Your task to perform on an android device: check android version Image 0: 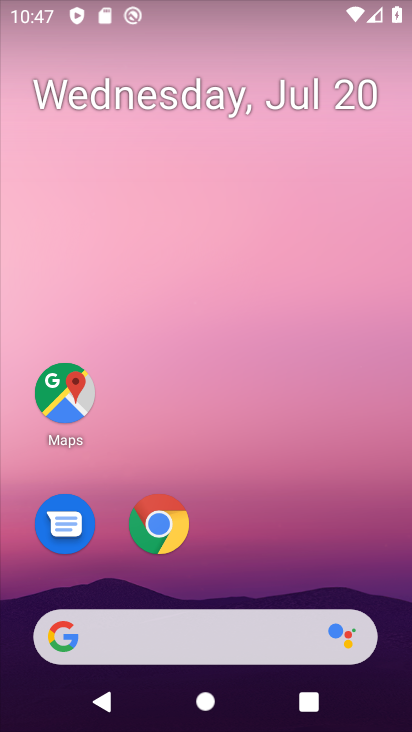
Step 0: drag from (251, 556) to (300, 98)
Your task to perform on an android device: check android version Image 1: 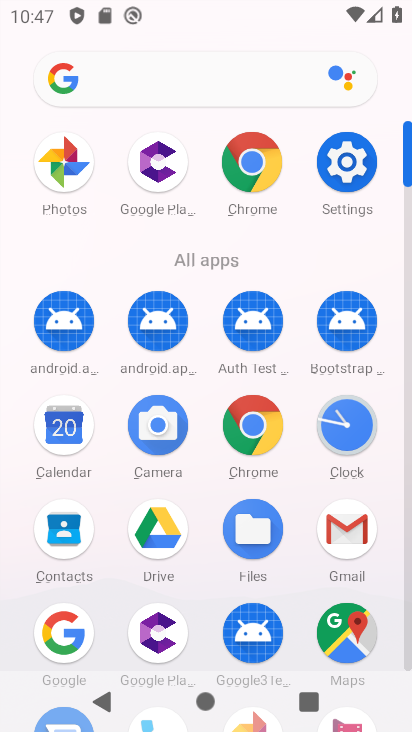
Step 1: click (351, 165)
Your task to perform on an android device: check android version Image 2: 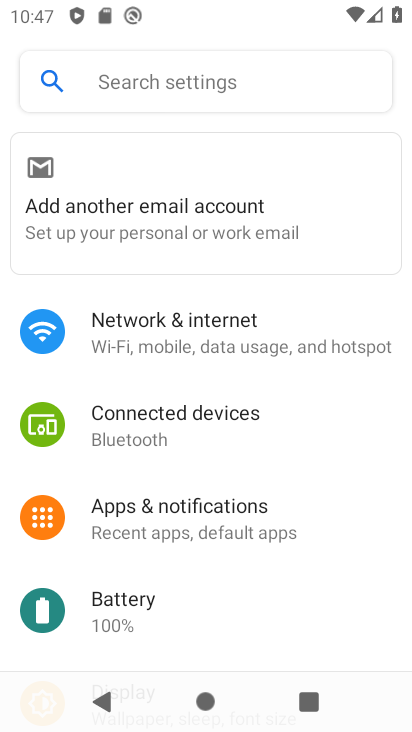
Step 2: drag from (251, 582) to (290, 105)
Your task to perform on an android device: check android version Image 3: 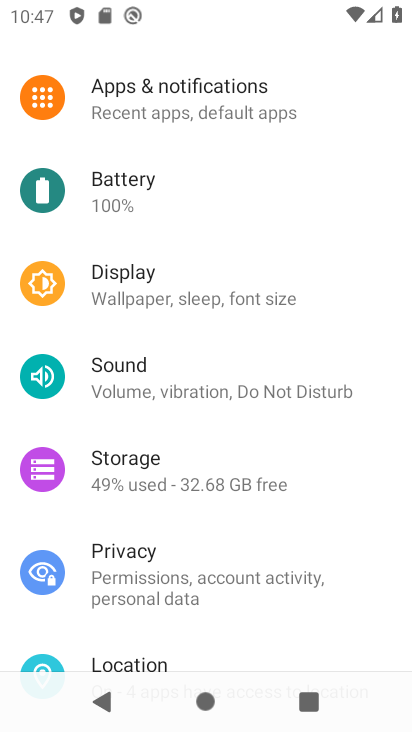
Step 3: drag from (198, 594) to (288, 97)
Your task to perform on an android device: check android version Image 4: 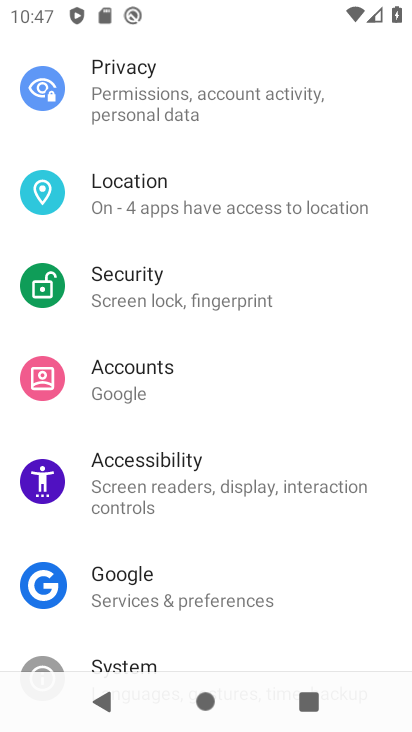
Step 4: drag from (215, 529) to (264, 172)
Your task to perform on an android device: check android version Image 5: 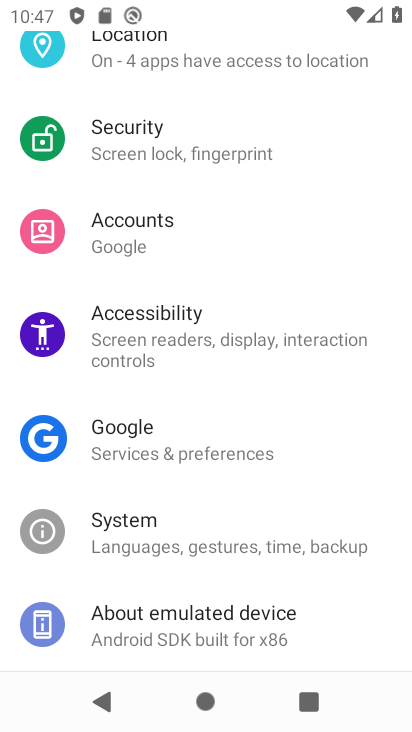
Step 5: click (195, 617)
Your task to perform on an android device: check android version Image 6: 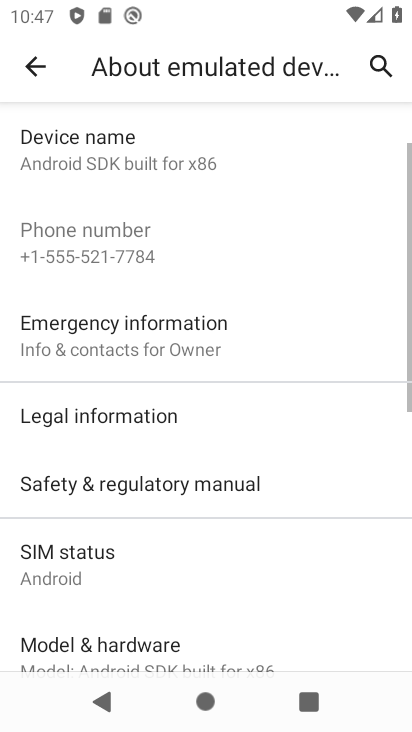
Step 6: drag from (246, 572) to (288, 164)
Your task to perform on an android device: check android version Image 7: 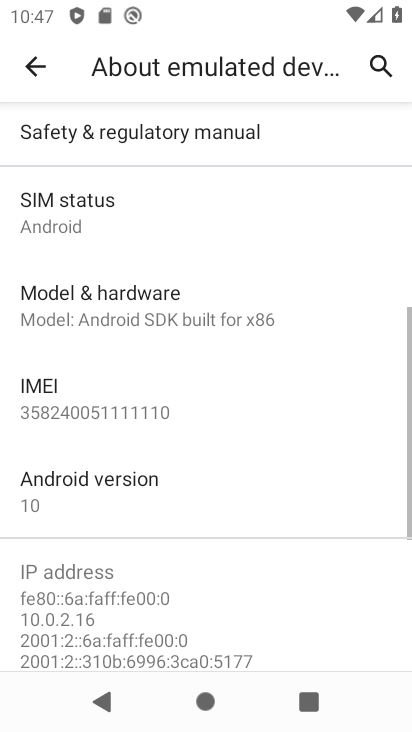
Step 7: click (151, 492)
Your task to perform on an android device: check android version Image 8: 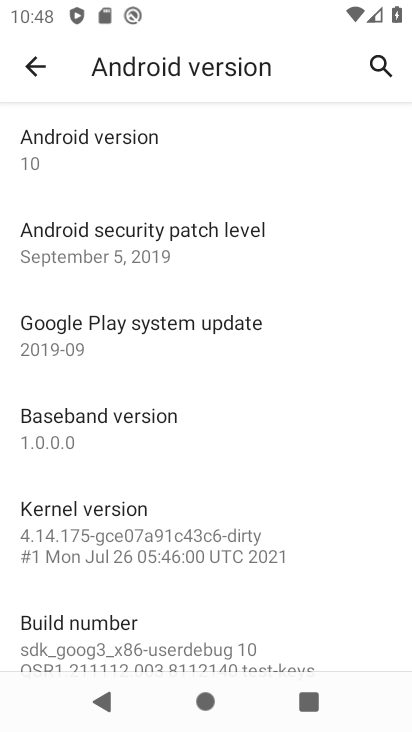
Step 8: task complete